Your task to perform on an android device: turn off notifications in google photos Image 0: 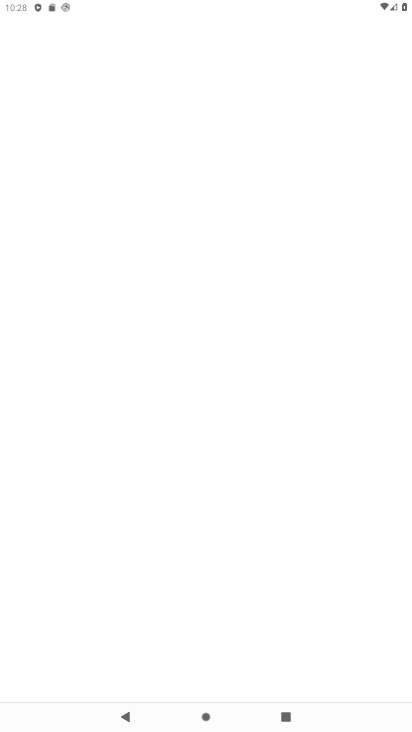
Step 0: drag from (208, 698) to (218, 234)
Your task to perform on an android device: turn off notifications in google photos Image 1: 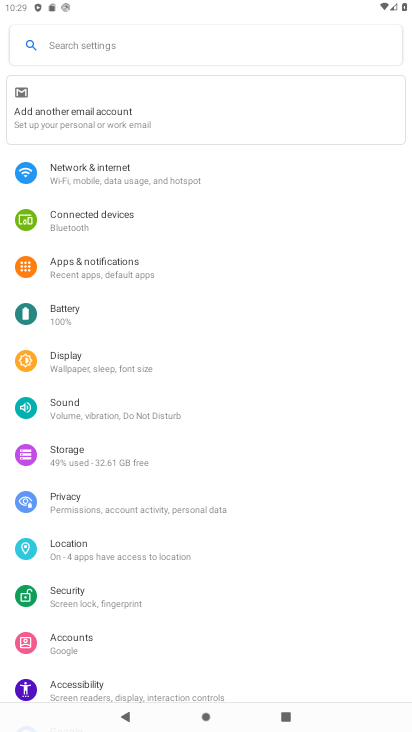
Step 1: drag from (225, 664) to (180, 318)
Your task to perform on an android device: turn off notifications in google photos Image 2: 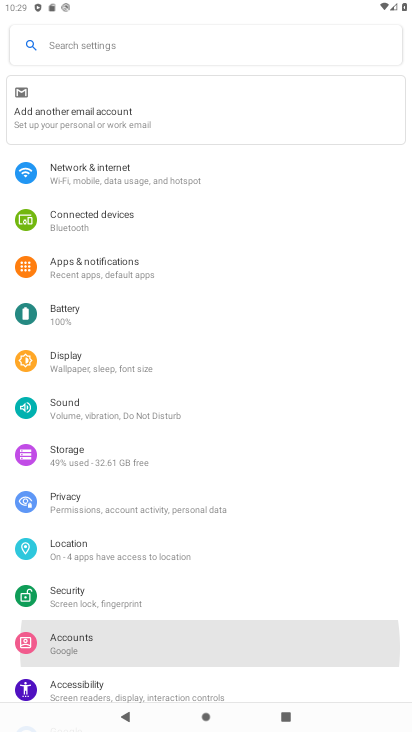
Step 2: drag from (156, 487) to (261, 199)
Your task to perform on an android device: turn off notifications in google photos Image 3: 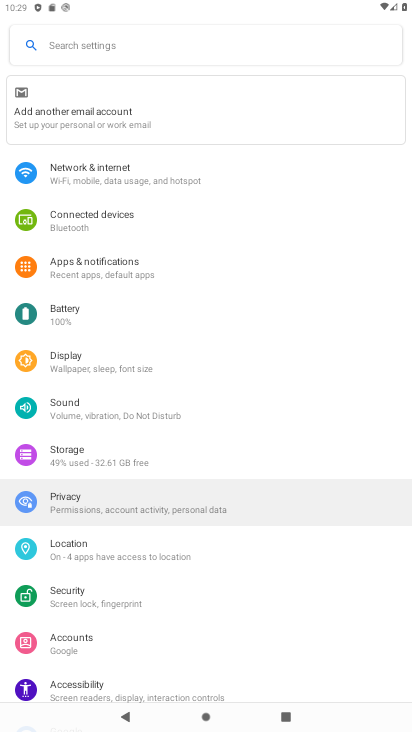
Step 3: drag from (228, 528) to (251, 320)
Your task to perform on an android device: turn off notifications in google photos Image 4: 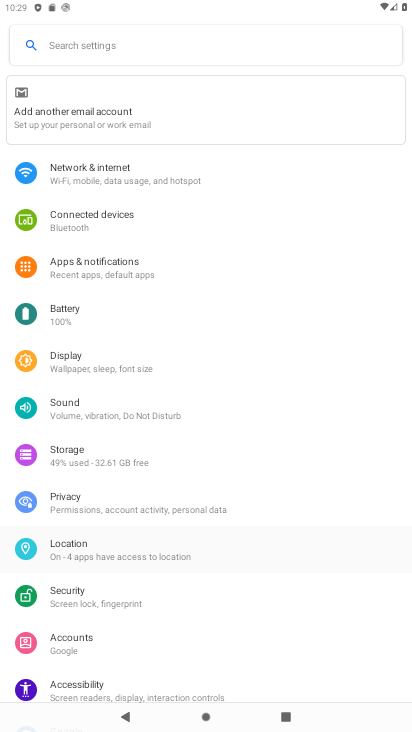
Step 4: drag from (155, 552) to (105, 366)
Your task to perform on an android device: turn off notifications in google photos Image 5: 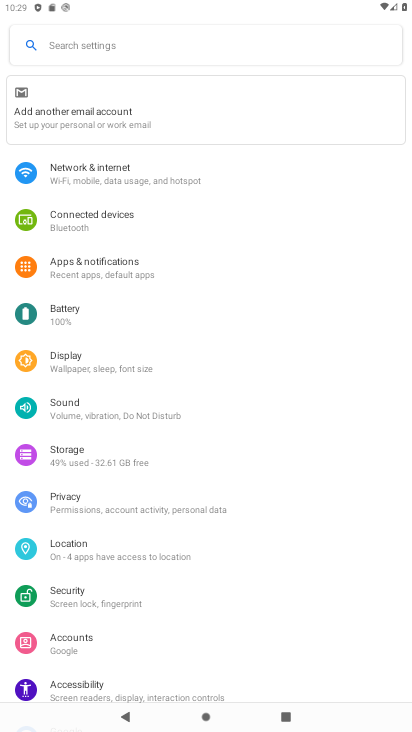
Step 5: drag from (153, 594) to (152, 287)
Your task to perform on an android device: turn off notifications in google photos Image 6: 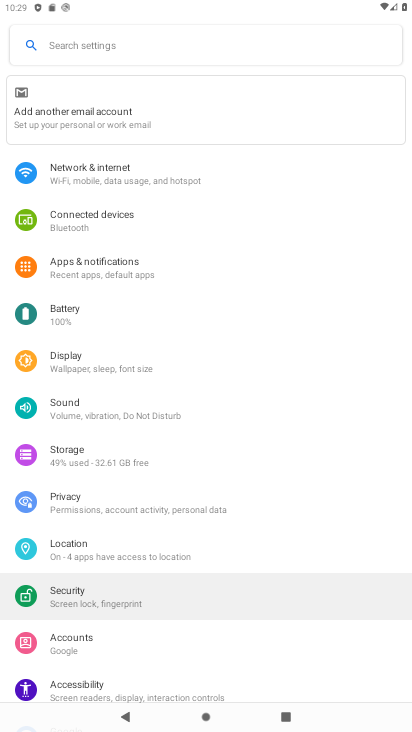
Step 6: drag from (133, 551) to (139, 211)
Your task to perform on an android device: turn off notifications in google photos Image 7: 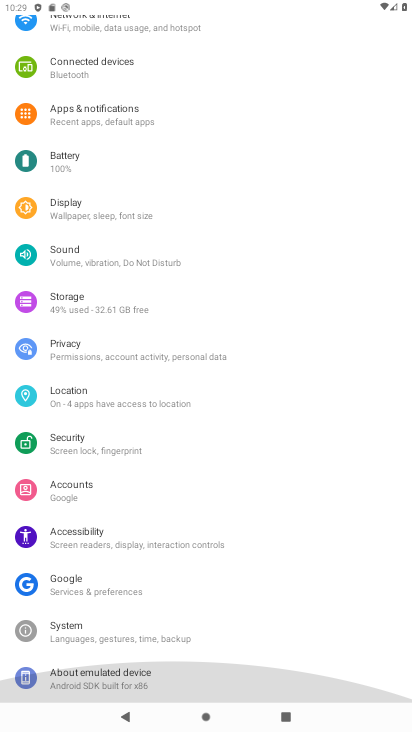
Step 7: click (108, 219)
Your task to perform on an android device: turn off notifications in google photos Image 8: 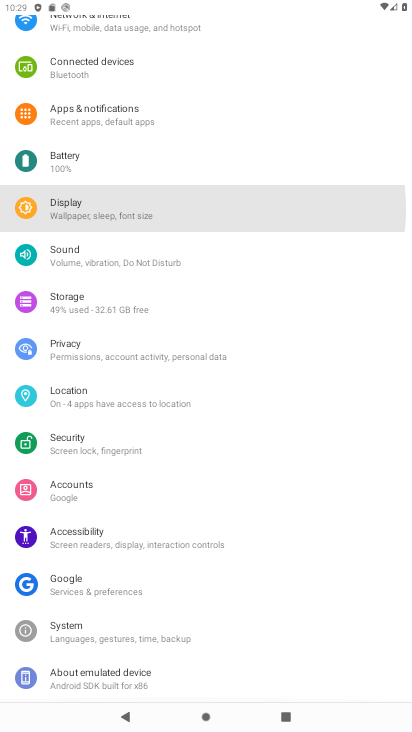
Step 8: drag from (164, 531) to (112, 242)
Your task to perform on an android device: turn off notifications in google photos Image 9: 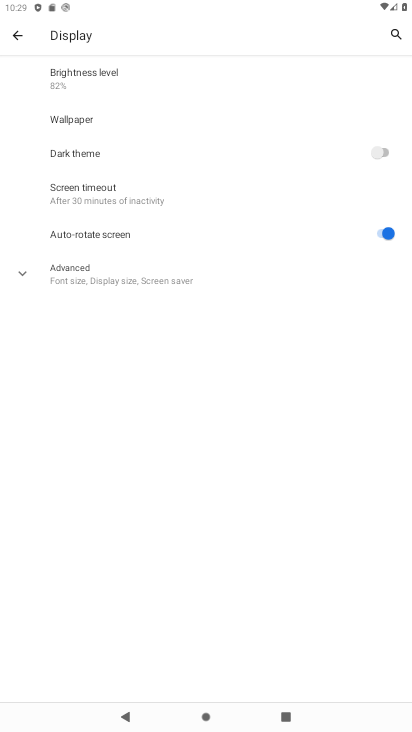
Step 9: click (18, 34)
Your task to perform on an android device: turn off notifications in google photos Image 10: 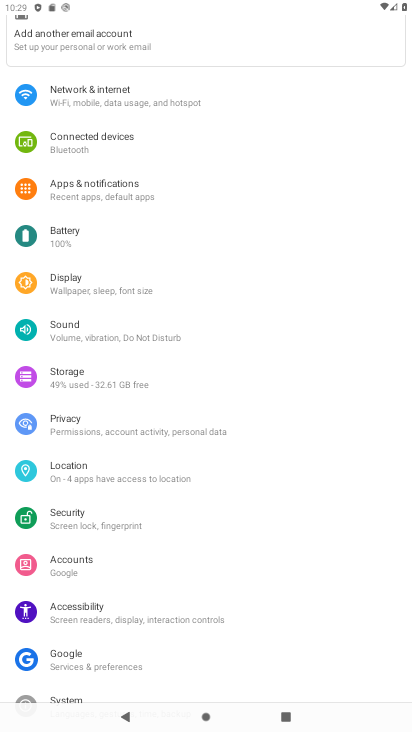
Step 10: click (131, 196)
Your task to perform on an android device: turn off notifications in google photos Image 11: 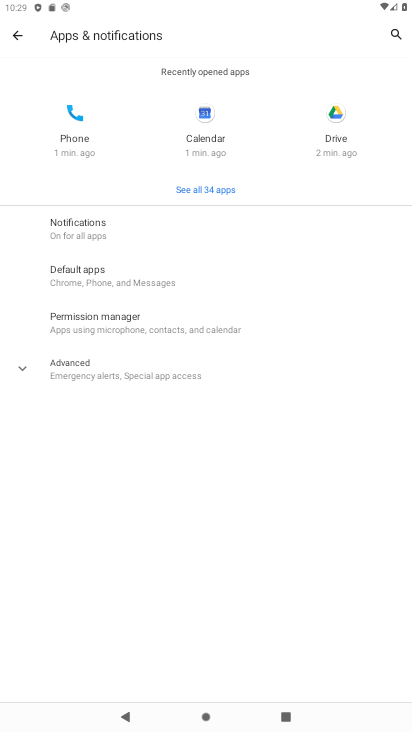
Step 11: click (1, 17)
Your task to perform on an android device: turn off notifications in google photos Image 12: 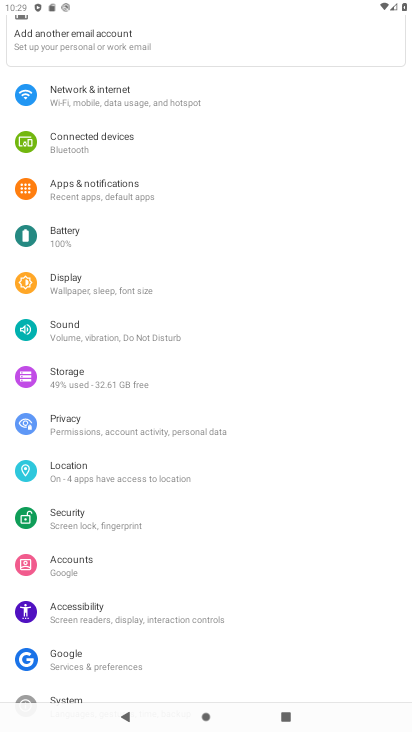
Step 12: click (94, 186)
Your task to perform on an android device: turn off notifications in google photos Image 13: 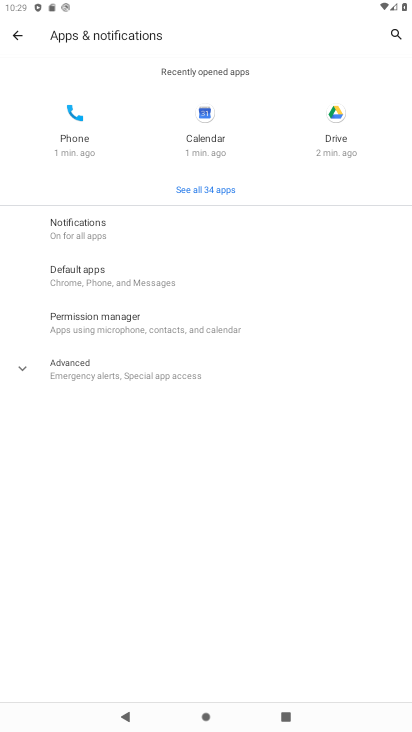
Step 13: click (100, 224)
Your task to perform on an android device: turn off notifications in google photos Image 14: 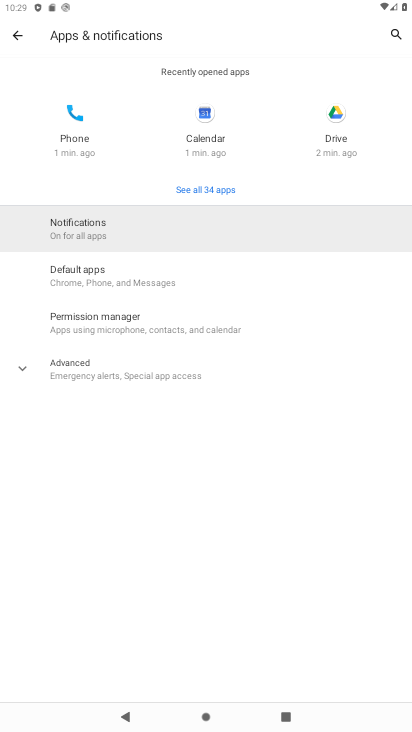
Step 14: click (23, 224)
Your task to perform on an android device: turn off notifications in google photos Image 15: 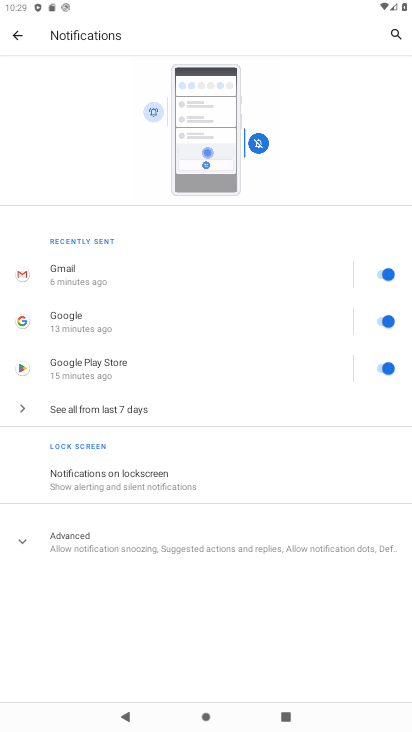
Step 15: drag from (193, 556) to (156, 105)
Your task to perform on an android device: turn off notifications in google photos Image 16: 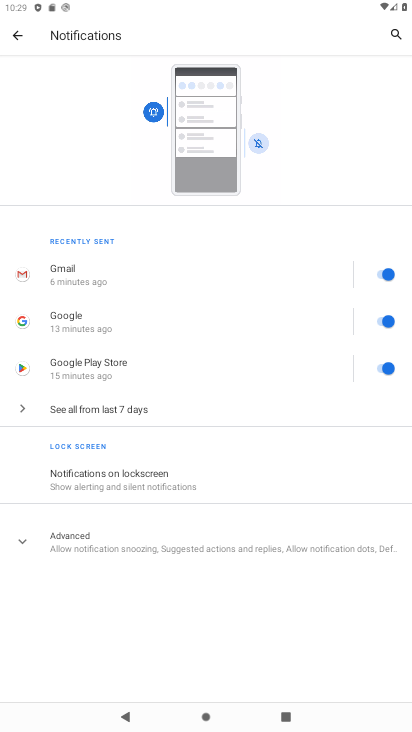
Step 16: click (86, 535)
Your task to perform on an android device: turn off notifications in google photos Image 17: 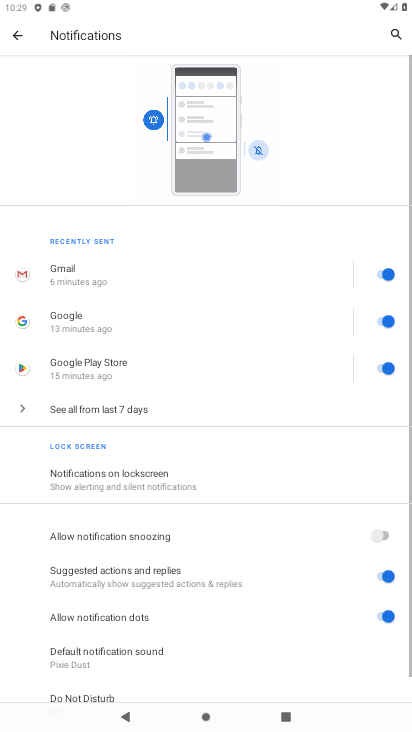
Step 17: drag from (246, 563) to (279, 103)
Your task to perform on an android device: turn off notifications in google photos Image 18: 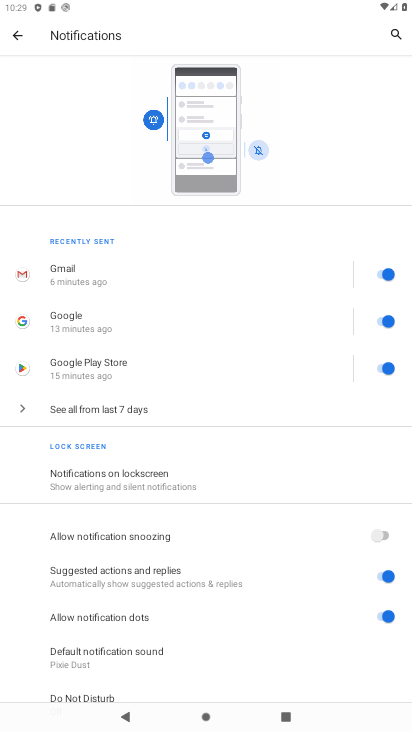
Step 18: click (213, 136)
Your task to perform on an android device: turn off notifications in google photos Image 19: 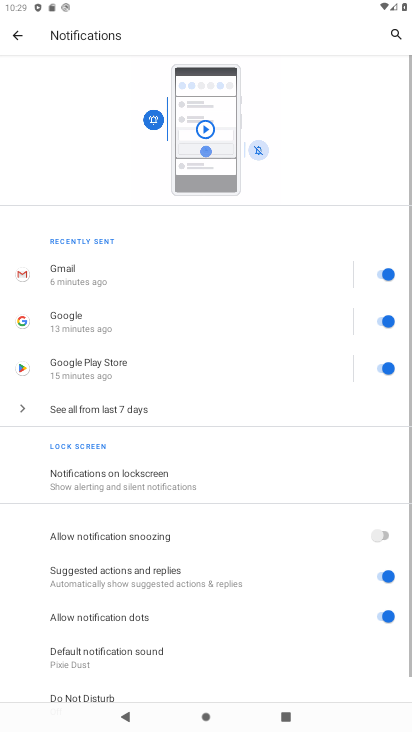
Step 19: drag from (243, 613) to (215, 161)
Your task to perform on an android device: turn off notifications in google photos Image 20: 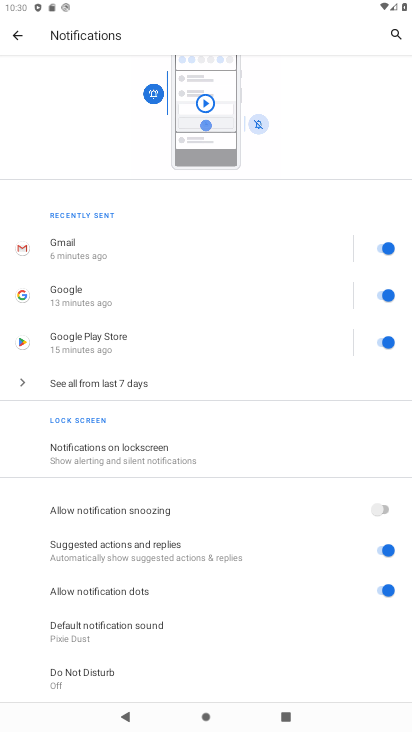
Step 20: drag from (172, 559) to (193, 138)
Your task to perform on an android device: turn off notifications in google photos Image 21: 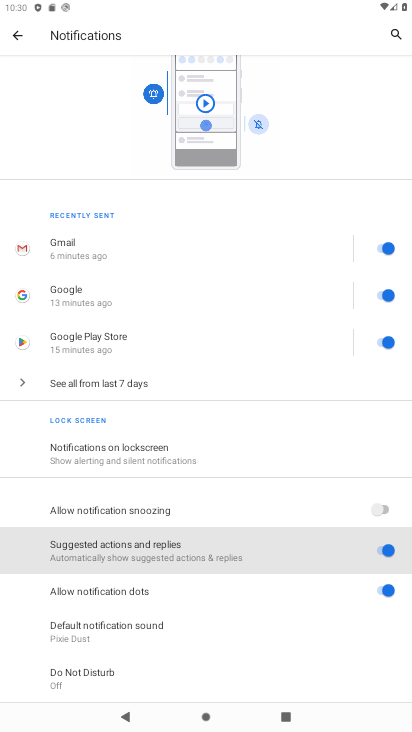
Step 21: click (179, 231)
Your task to perform on an android device: turn off notifications in google photos Image 22: 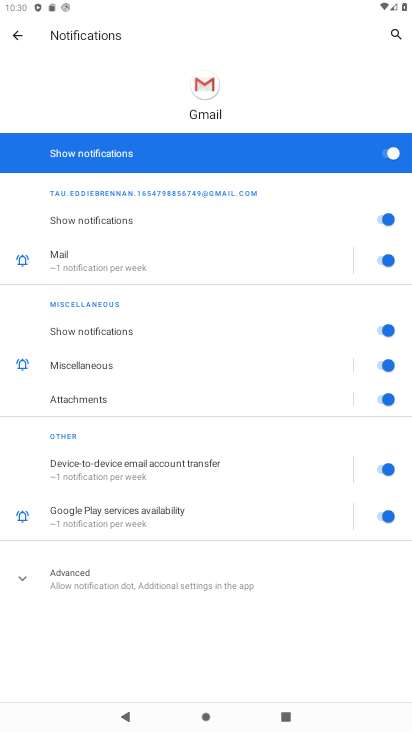
Step 22: click (13, 34)
Your task to perform on an android device: turn off notifications in google photos Image 23: 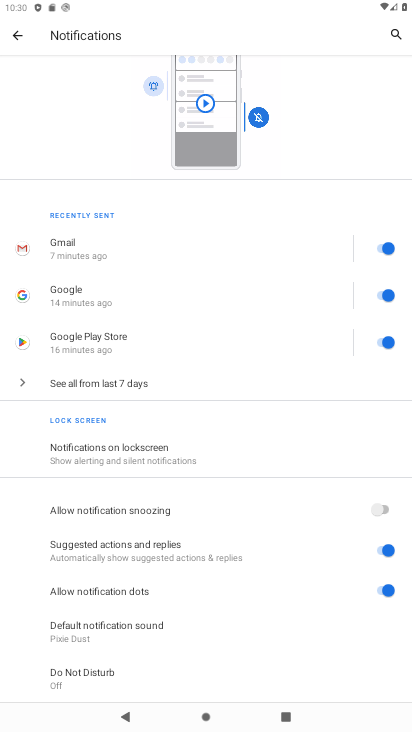
Step 23: drag from (230, 547) to (279, 135)
Your task to perform on an android device: turn off notifications in google photos Image 24: 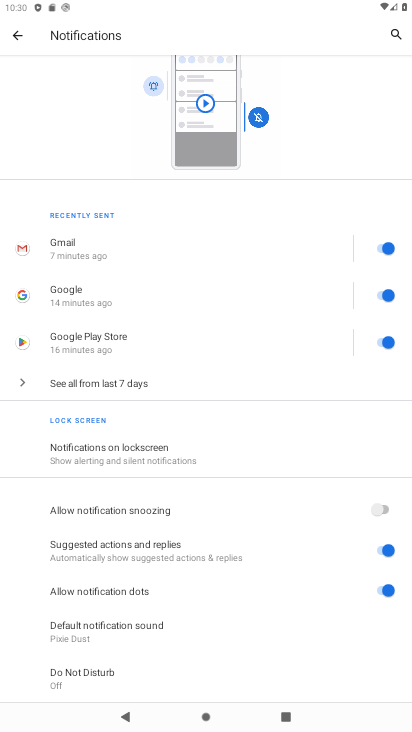
Step 24: click (23, 30)
Your task to perform on an android device: turn off notifications in google photos Image 25: 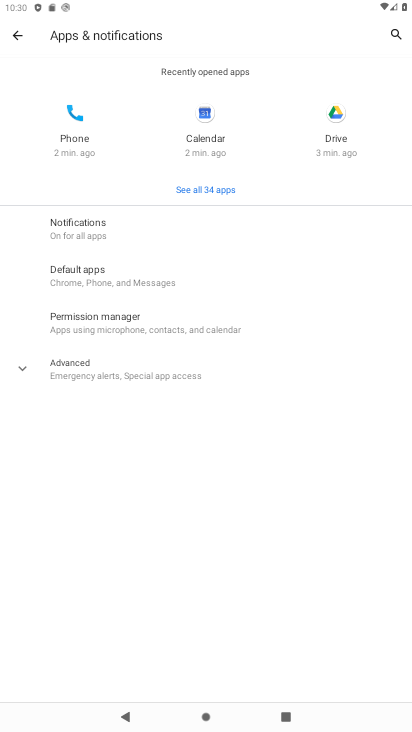
Step 25: click (3, 25)
Your task to perform on an android device: turn off notifications in google photos Image 26: 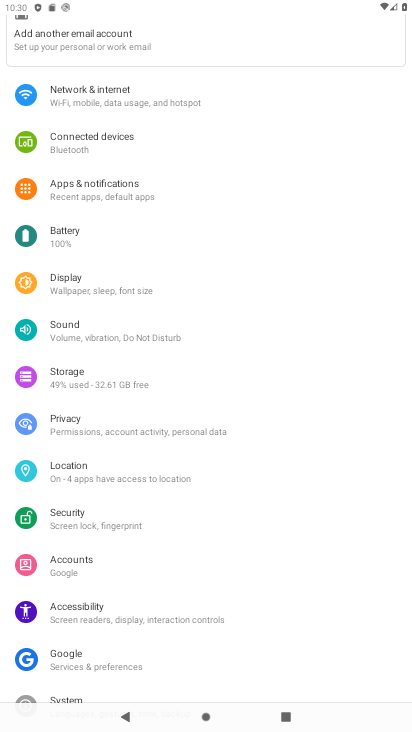
Step 26: press back button
Your task to perform on an android device: turn off notifications in google photos Image 27: 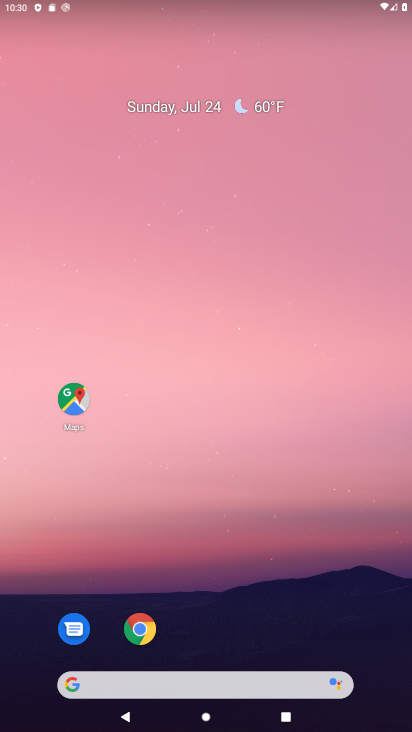
Step 27: drag from (263, 682) to (119, 8)
Your task to perform on an android device: turn off notifications in google photos Image 28: 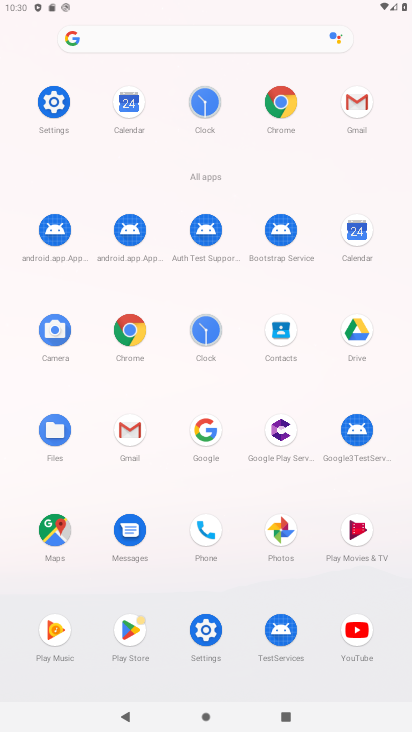
Step 28: drag from (270, 610) to (255, 115)
Your task to perform on an android device: turn off notifications in google photos Image 29: 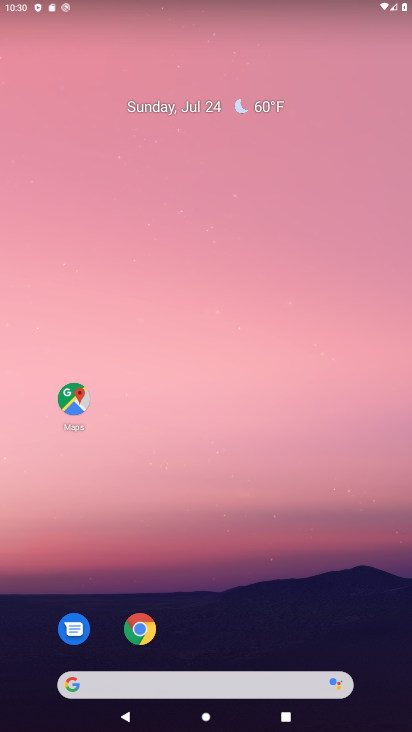
Step 29: drag from (277, 618) to (235, 29)
Your task to perform on an android device: turn off notifications in google photos Image 30: 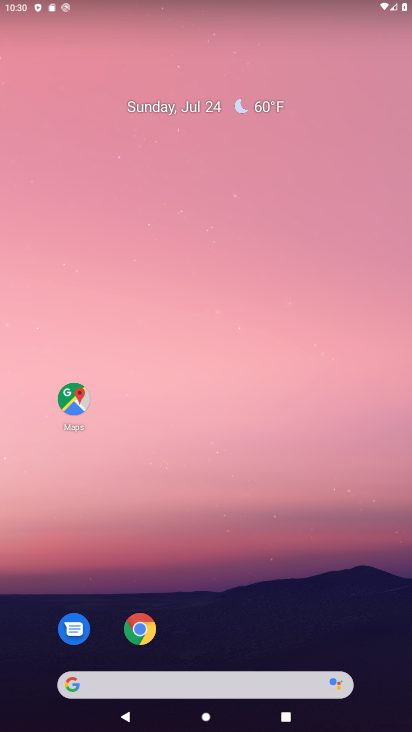
Step 30: drag from (234, 478) to (186, 25)
Your task to perform on an android device: turn off notifications in google photos Image 31: 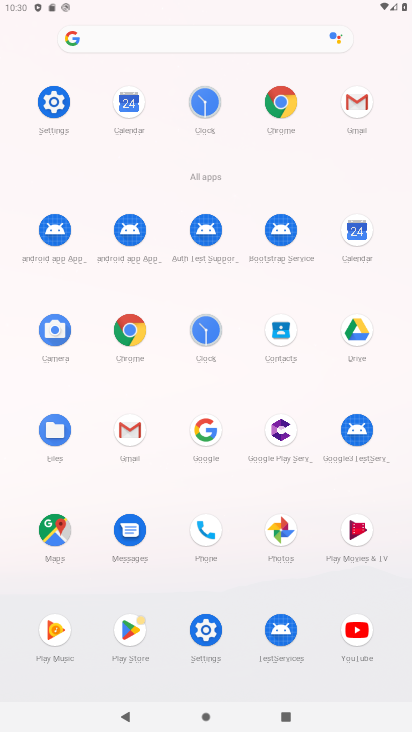
Step 31: click (297, 517)
Your task to perform on an android device: turn off notifications in google photos Image 32: 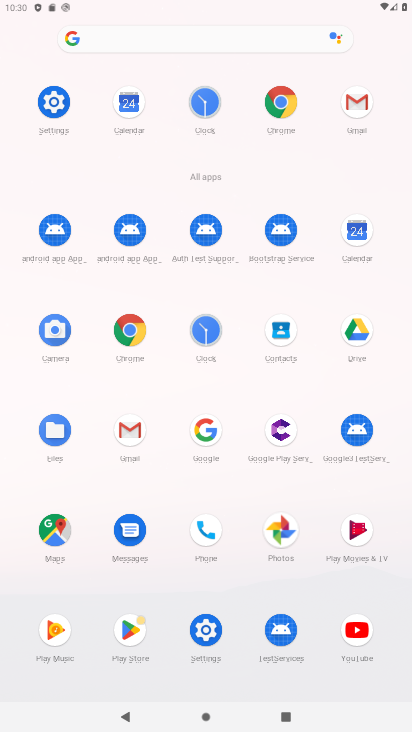
Step 32: click (282, 518)
Your task to perform on an android device: turn off notifications in google photos Image 33: 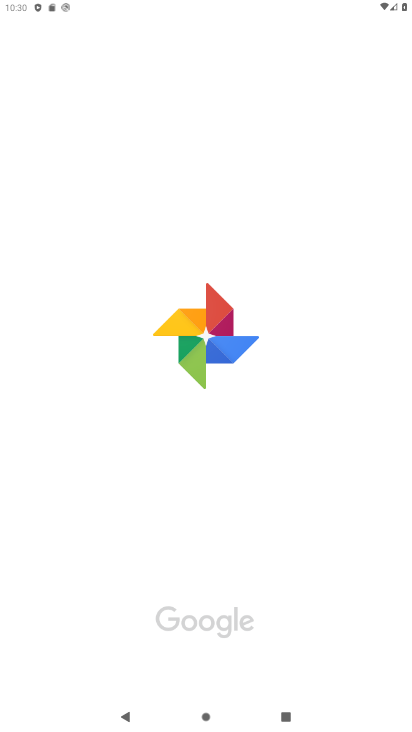
Step 33: click (281, 518)
Your task to perform on an android device: turn off notifications in google photos Image 34: 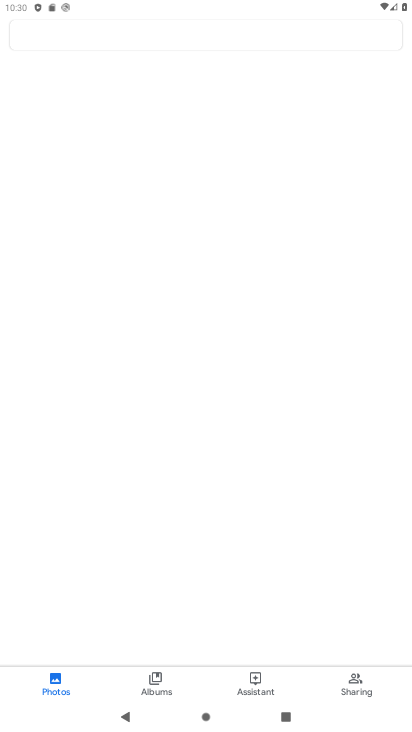
Step 34: click (282, 522)
Your task to perform on an android device: turn off notifications in google photos Image 35: 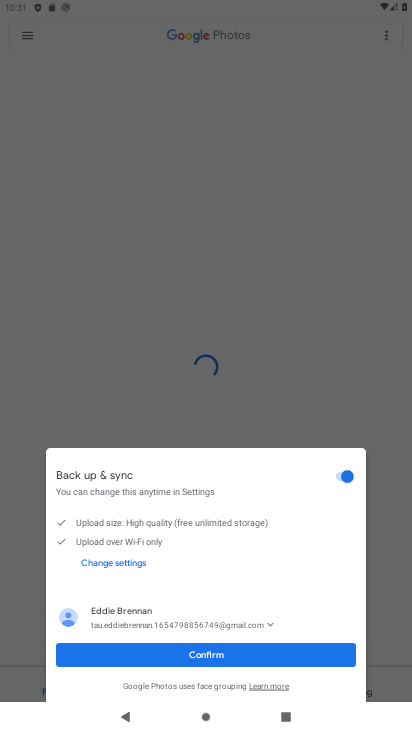
Step 35: click (216, 650)
Your task to perform on an android device: turn off notifications in google photos Image 36: 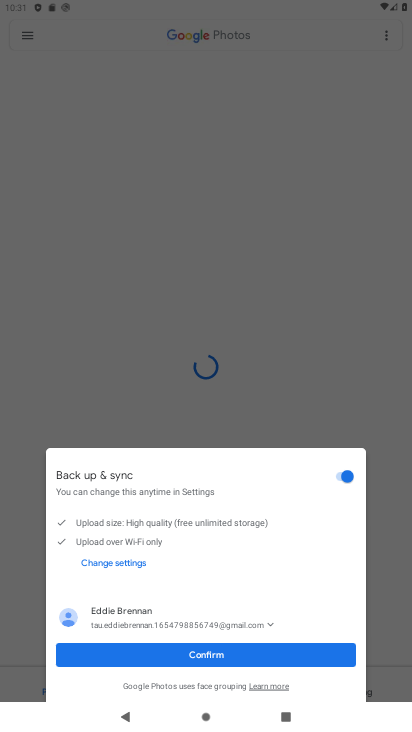
Step 36: click (217, 653)
Your task to perform on an android device: turn off notifications in google photos Image 37: 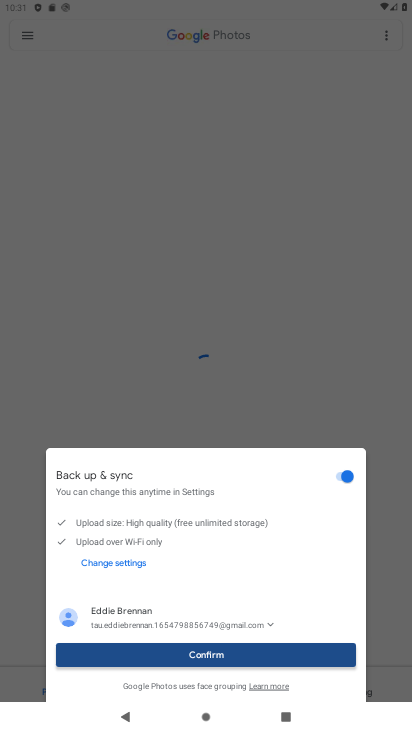
Step 37: click (217, 653)
Your task to perform on an android device: turn off notifications in google photos Image 38: 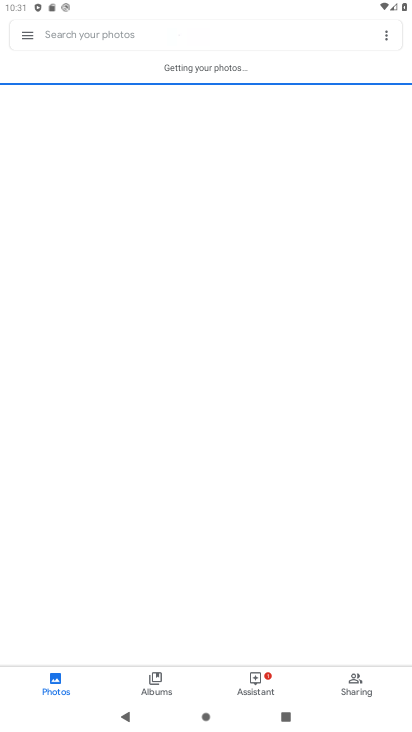
Step 38: click (22, 37)
Your task to perform on an android device: turn off notifications in google photos Image 39: 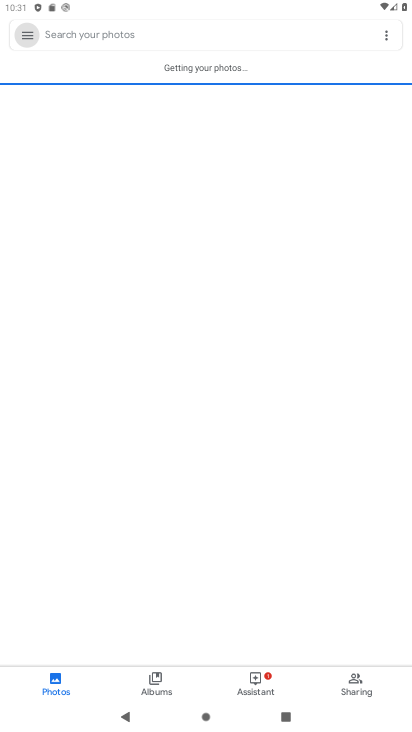
Step 39: click (26, 33)
Your task to perform on an android device: turn off notifications in google photos Image 40: 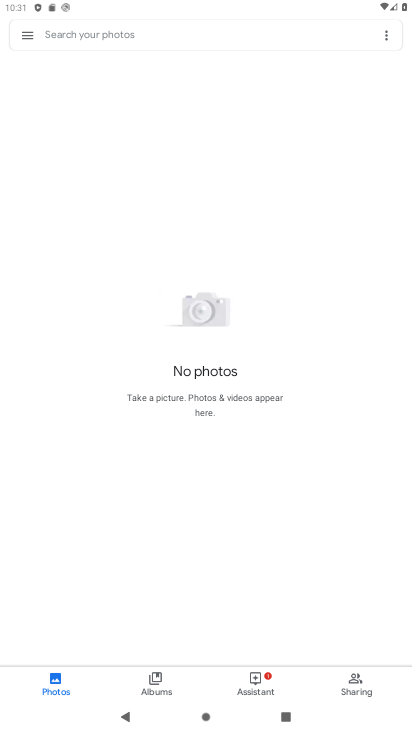
Step 40: click (30, 38)
Your task to perform on an android device: turn off notifications in google photos Image 41: 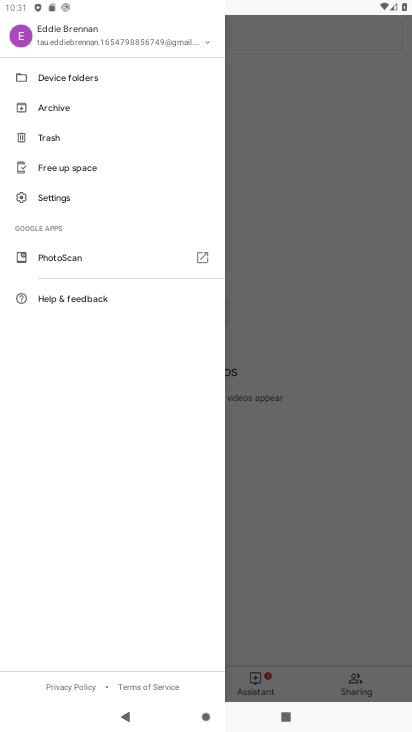
Step 41: click (257, 253)
Your task to perform on an android device: turn off notifications in google photos Image 42: 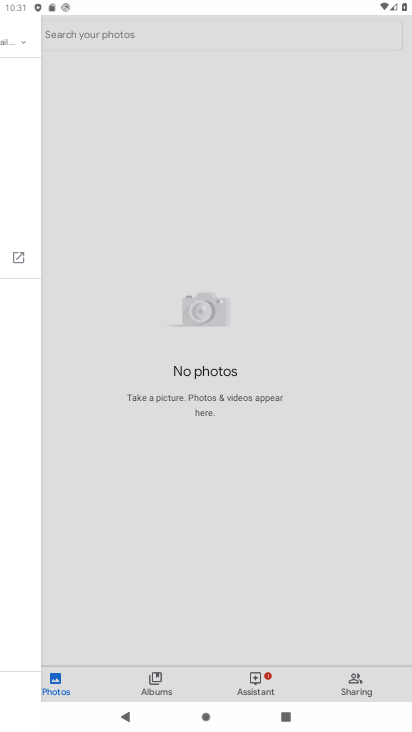
Step 42: click (264, 248)
Your task to perform on an android device: turn off notifications in google photos Image 43: 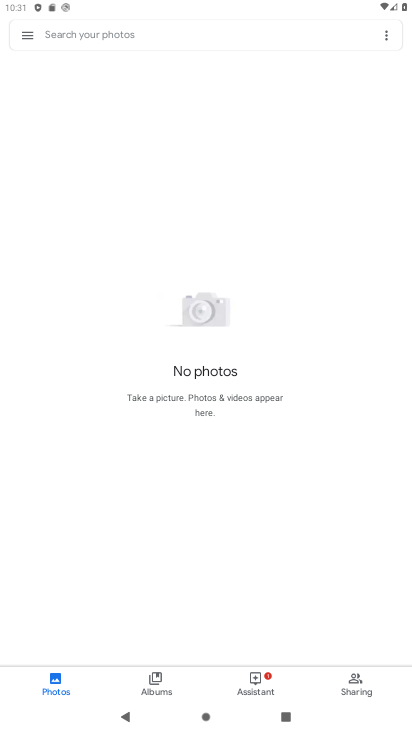
Step 43: drag from (264, 248) to (28, 27)
Your task to perform on an android device: turn off notifications in google photos Image 44: 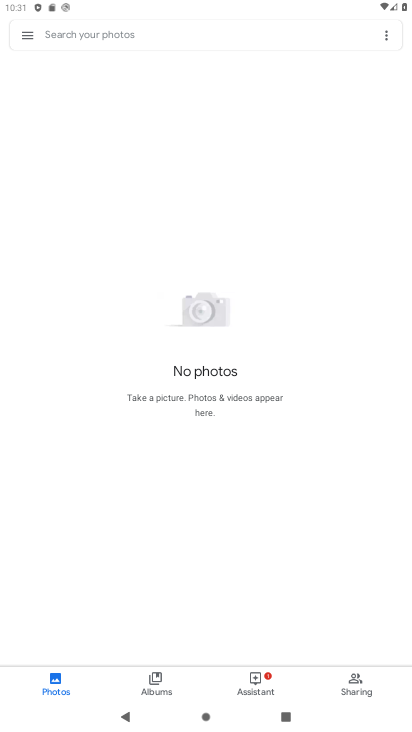
Step 44: click (32, 33)
Your task to perform on an android device: turn off notifications in google photos Image 45: 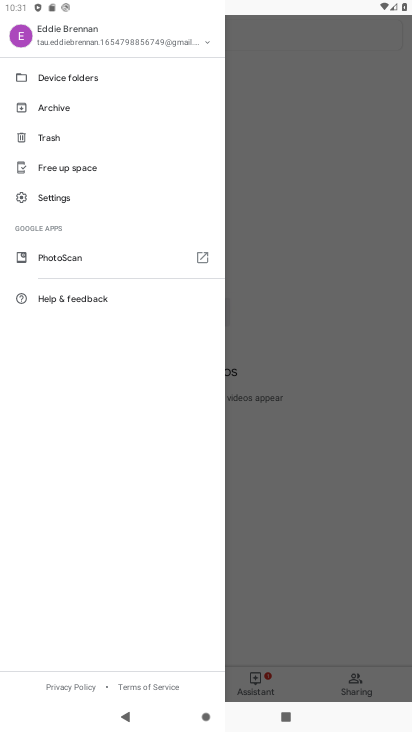
Step 45: click (50, 202)
Your task to perform on an android device: turn off notifications in google photos Image 46: 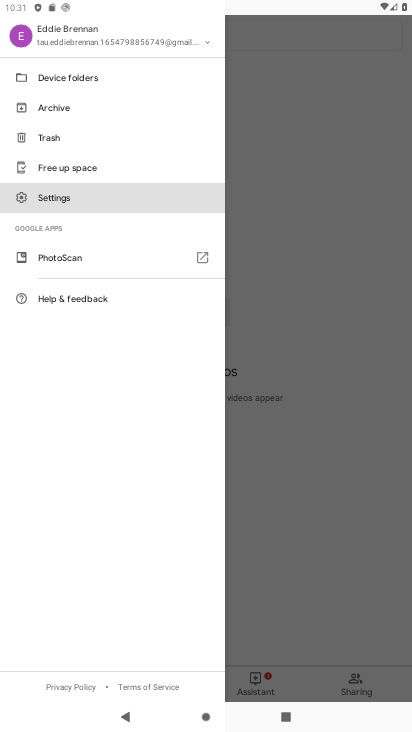
Step 46: click (54, 198)
Your task to perform on an android device: turn off notifications in google photos Image 47: 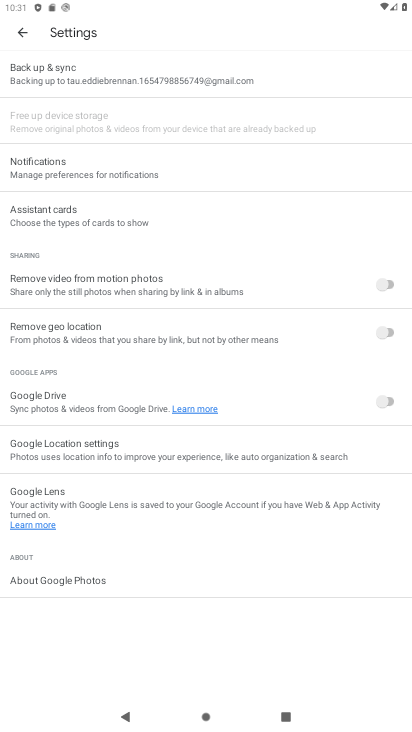
Step 47: click (52, 165)
Your task to perform on an android device: turn off notifications in google photos Image 48: 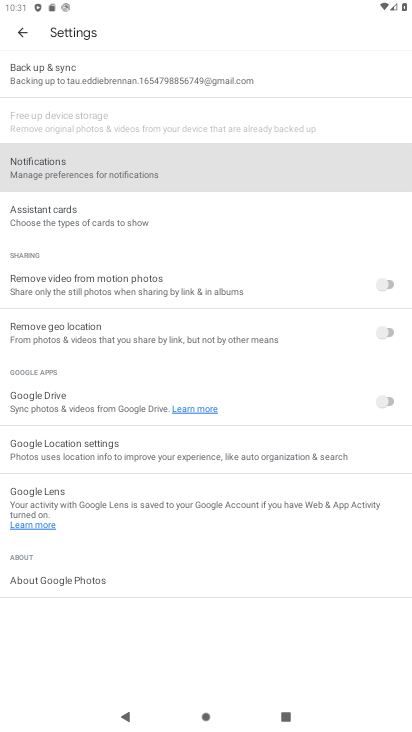
Step 48: click (56, 162)
Your task to perform on an android device: turn off notifications in google photos Image 49: 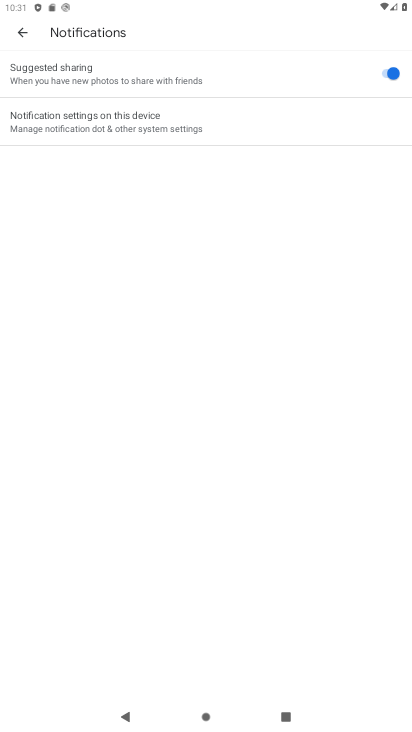
Step 49: click (118, 117)
Your task to perform on an android device: turn off notifications in google photos Image 50: 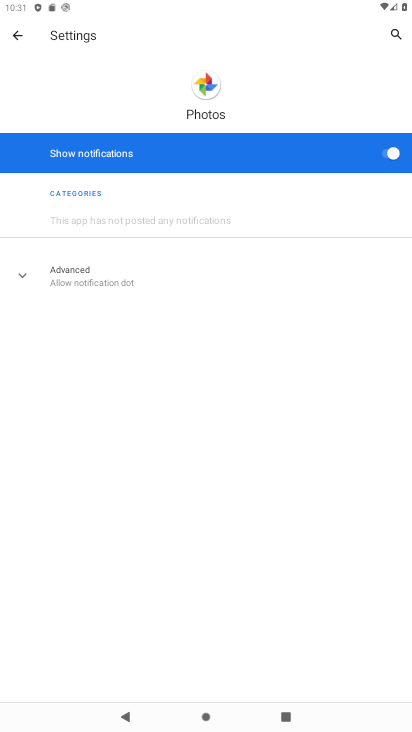
Step 50: click (398, 154)
Your task to perform on an android device: turn off notifications in google photos Image 51: 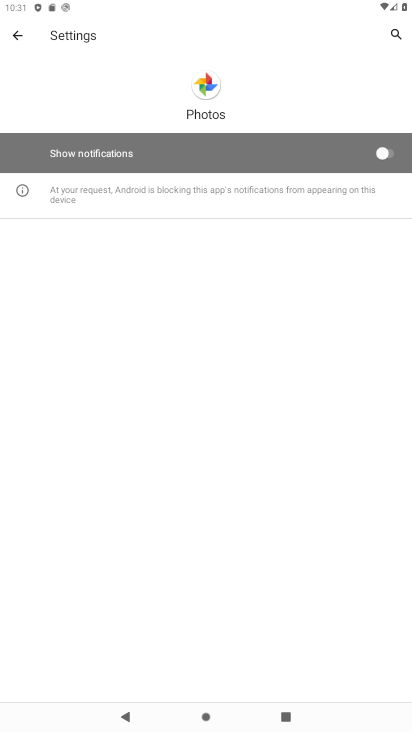
Step 51: task complete